Your task to perform on an android device: delete a single message in the gmail app Image 0: 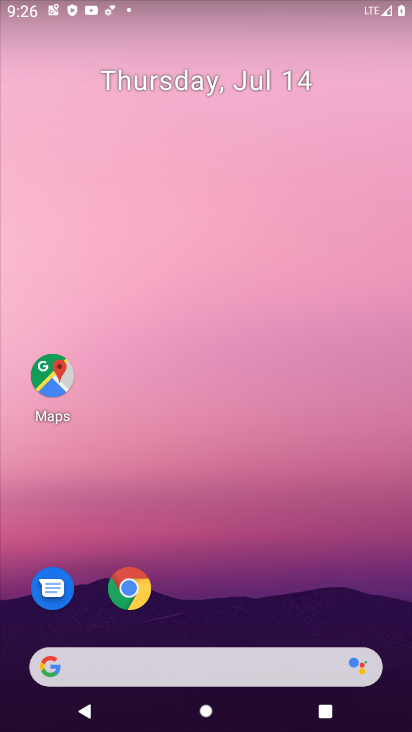
Step 0: drag from (371, 581) to (215, 183)
Your task to perform on an android device: delete a single message in the gmail app Image 1: 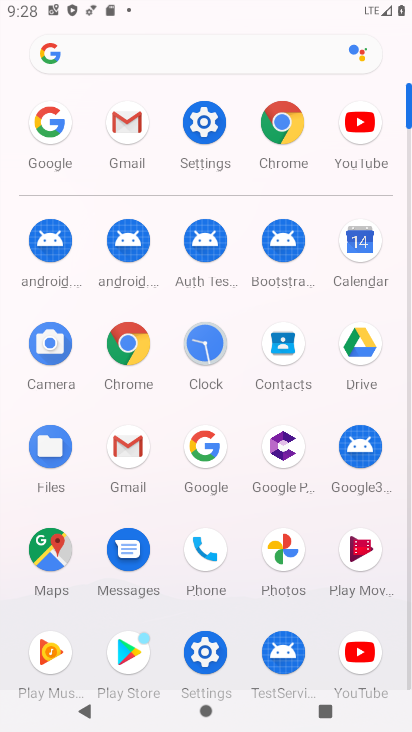
Step 1: click (130, 457)
Your task to perform on an android device: delete a single message in the gmail app Image 2: 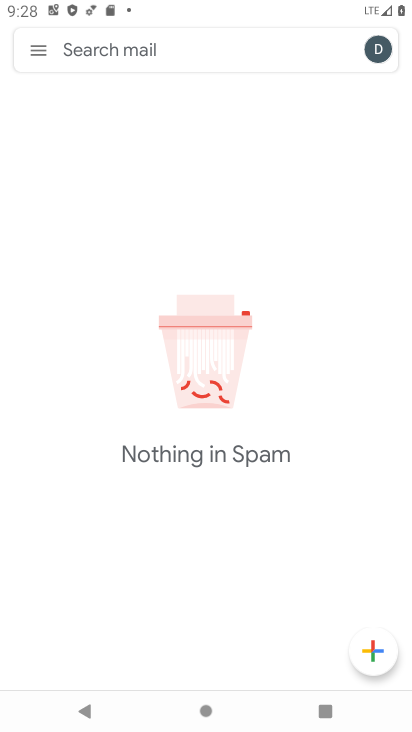
Step 2: click (40, 58)
Your task to perform on an android device: delete a single message in the gmail app Image 3: 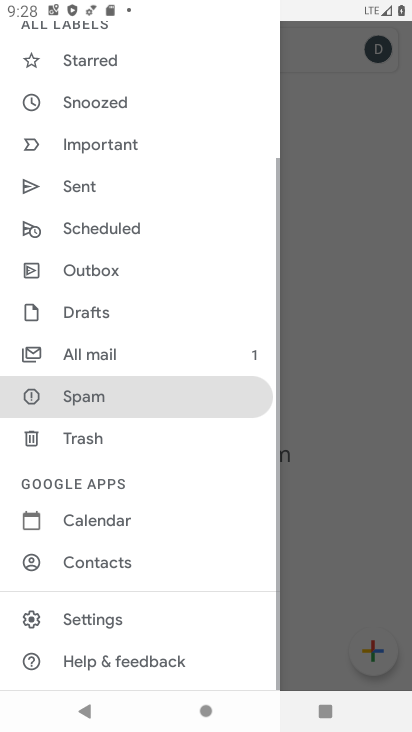
Step 3: drag from (125, 87) to (60, 573)
Your task to perform on an android device: delete a single message in the gmail app Image 4: 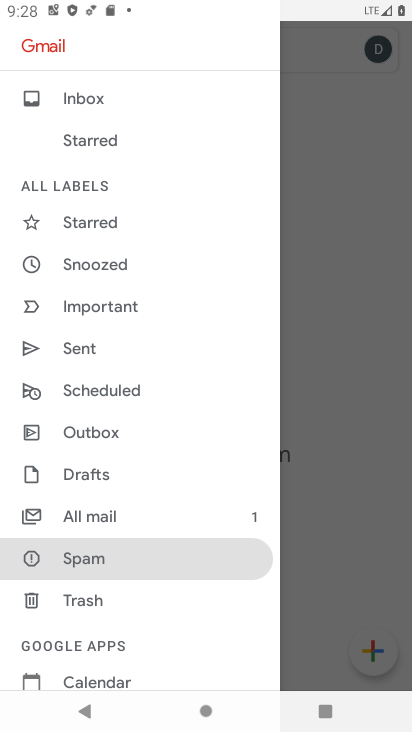
Step 4: click (100, 96)
Your task to perform on an android device: delete a single message in the gmail app Image 5: 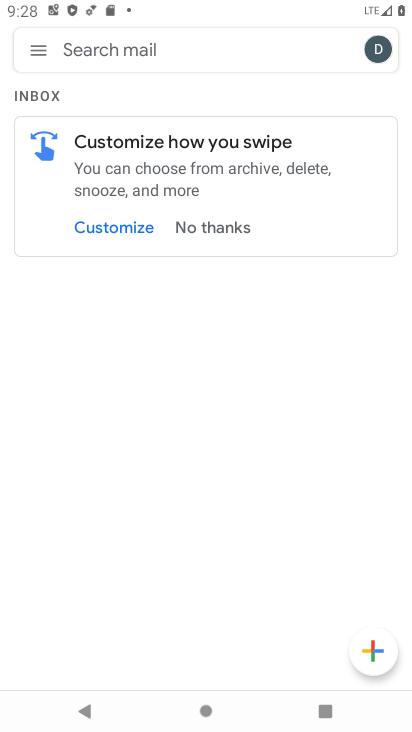
Step 5: task complete